Your task to perform on an android device: Search for seafood restaurants on Google Maps Image 0: 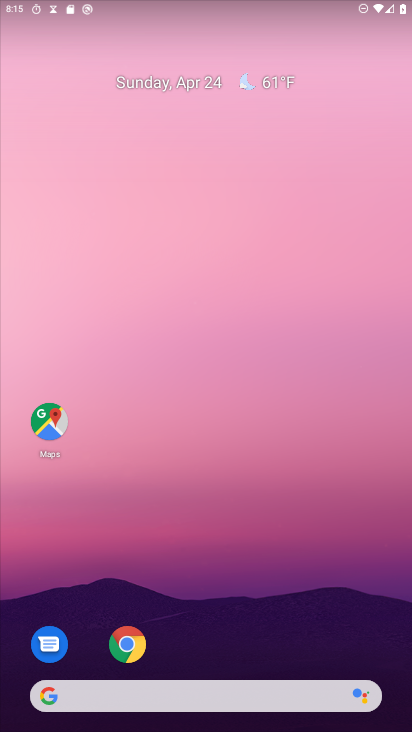
Step 0: click (42, 425)
Your task to perform on an android device: Search for seafood restaurants on Google Maps Image 1: 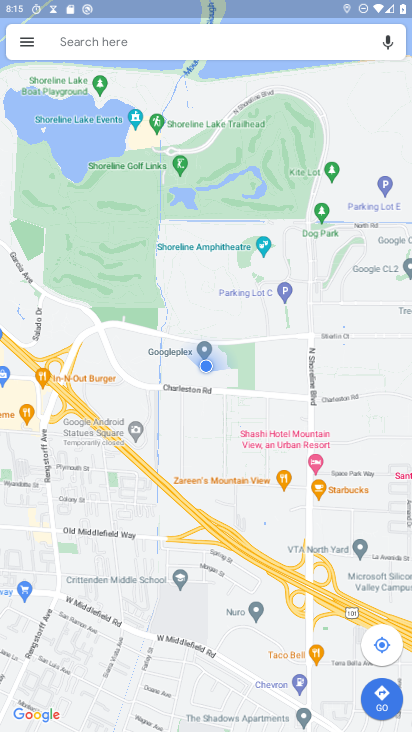
Step 1: click (127, 45)
Your task to perform on an android device: Search for seafood restaurants on Google Maps Image 2: 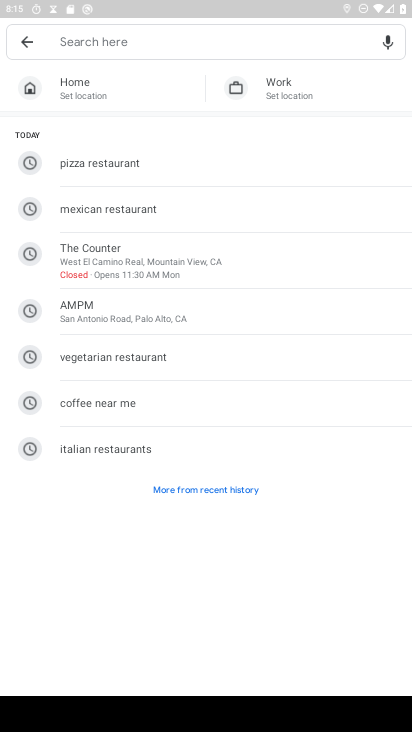
Step 2: type "seafood restaurants"
Your task to perform on an android device: Search for seafood restaurants on Google Maps Image 3: 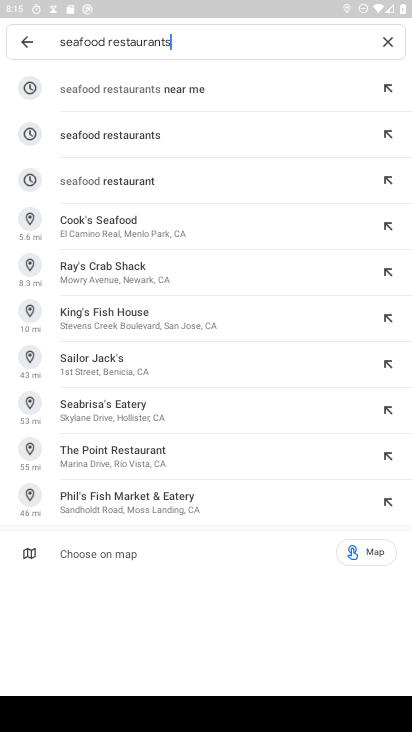
Step 3: click (122, 140)
Your task to perform on an android device: Search for seafood restaurants on Google Maps Image 4: 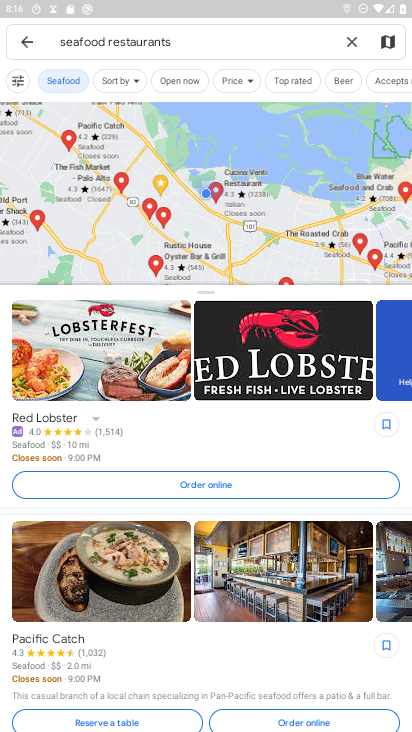
Step 4: task complete